Your task to perform on an android device: Open Maps and search for coffee Image 0: 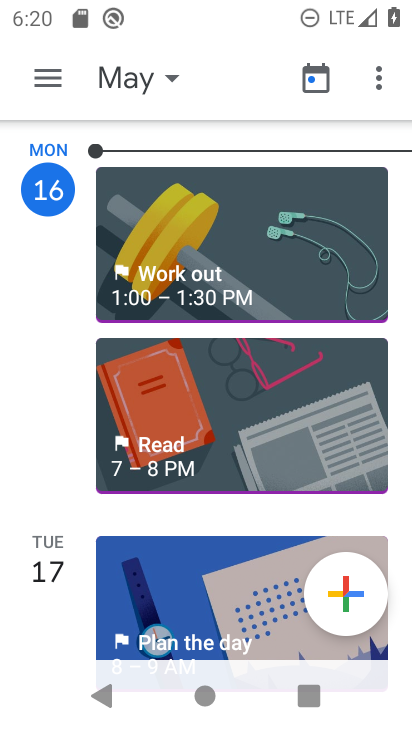
Step 0: press home button
Your task to perform on an android device: Open Maps and search for coffee Image 1: 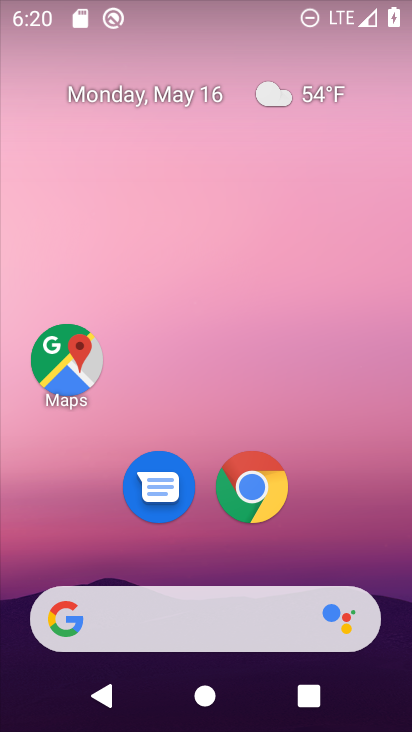
Step 1: drag from (195, 575) to (235, 247)
Your task to perform on an android device: Open Maps and search for coffee Image 2: 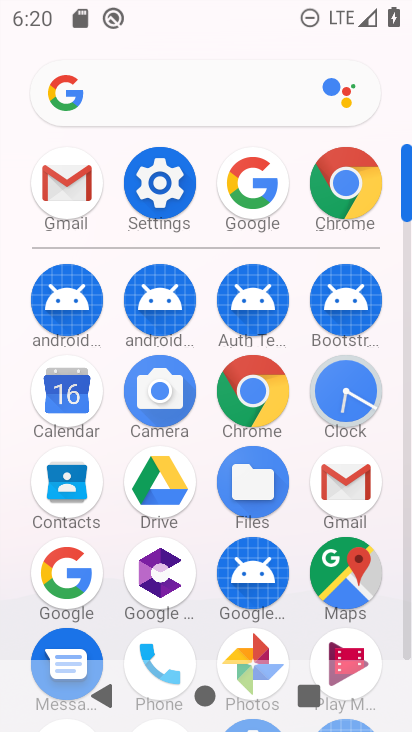
Step 2: click (344, 577)
Your task to perform on an android device: Open Maps and search for coffee Image 3: 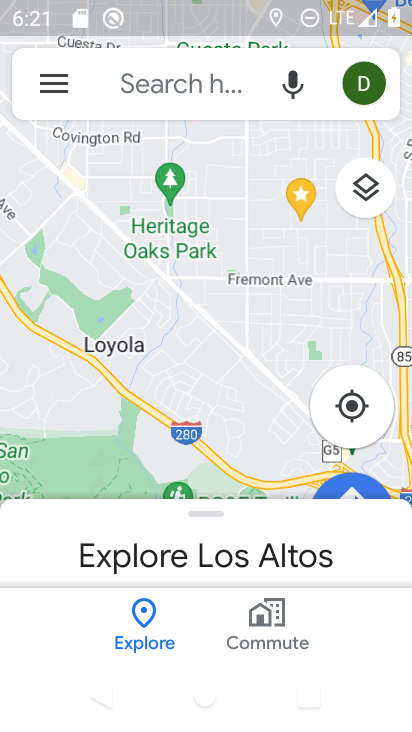
Step 3: type "coffee"
Your task to perform on an android device: Open Maps and search for coffee Image 4: 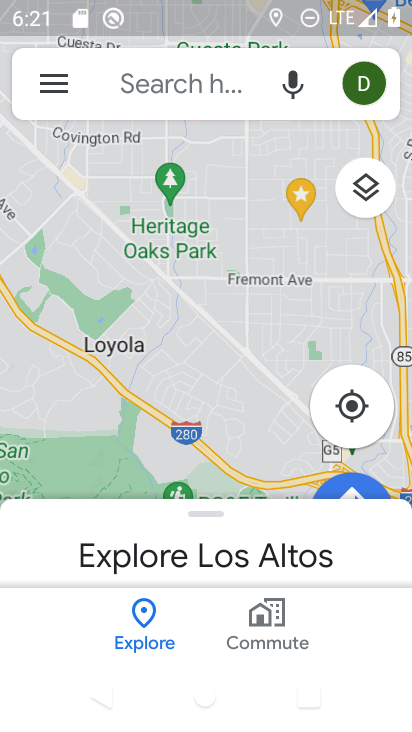
Step 4: click (169, 94)
Your task to perform on an android device: Open Maps and search for coffee Image 5: 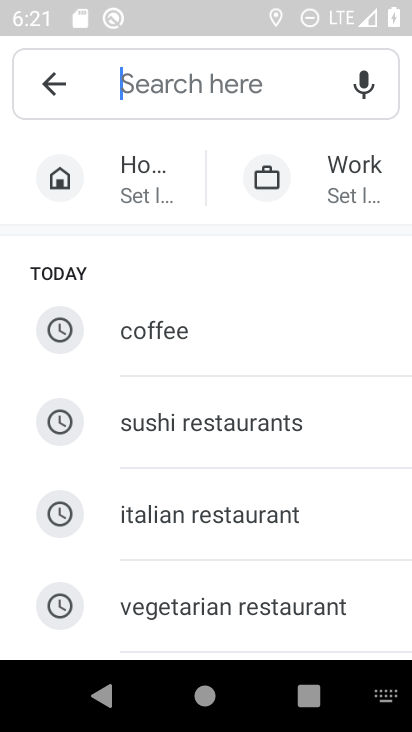
Step 5: type "coffee"
Your task to perform on an android device: Open Maps and search for coffee Image 6: 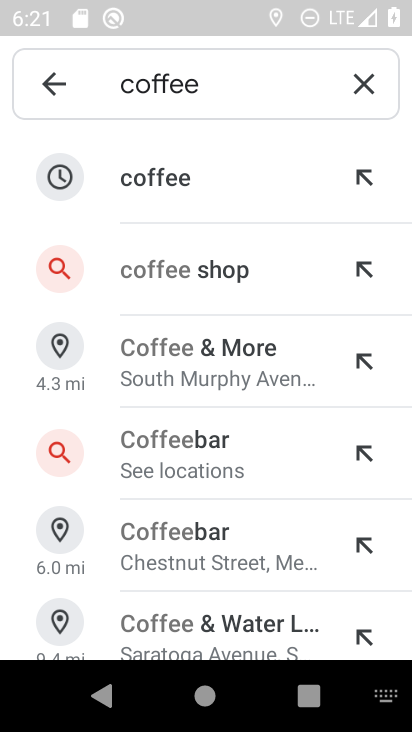
Step 6: click (168, 360)
Your task to perform on an android device: Open Maps and search for coffee Image 7: 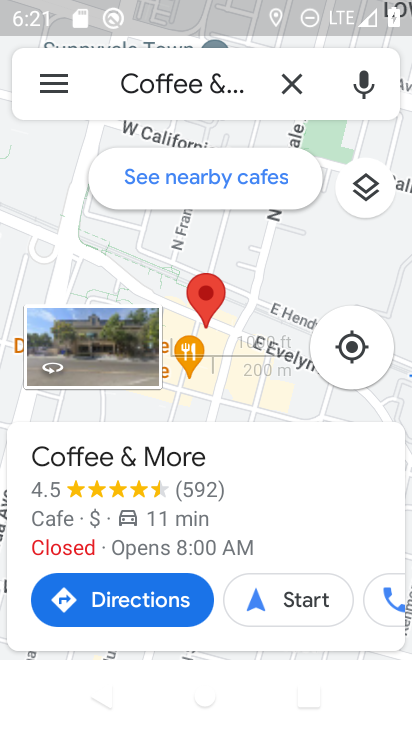
Step 7: task complete